Your task to perform on an android device: empty trash in google photos Image 0: 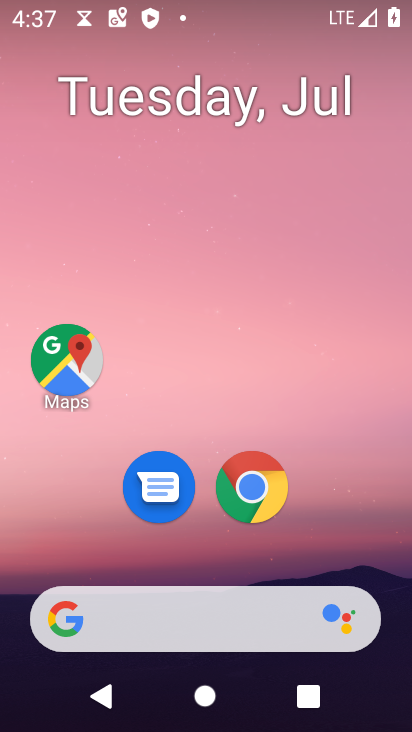
Step 0: drag from (175, 548) to (259, 32)
Your task to perform on an android device: empty trash in google photos Image 1: 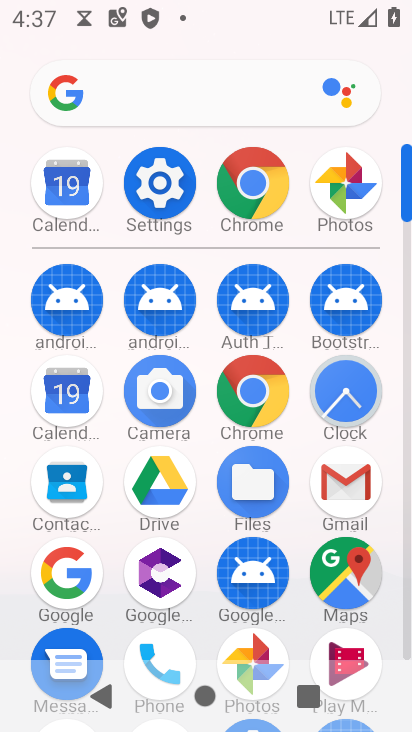
Step 1: click (260, 641)
Your task to perform on an android device: empty trash in google photos Image 2: 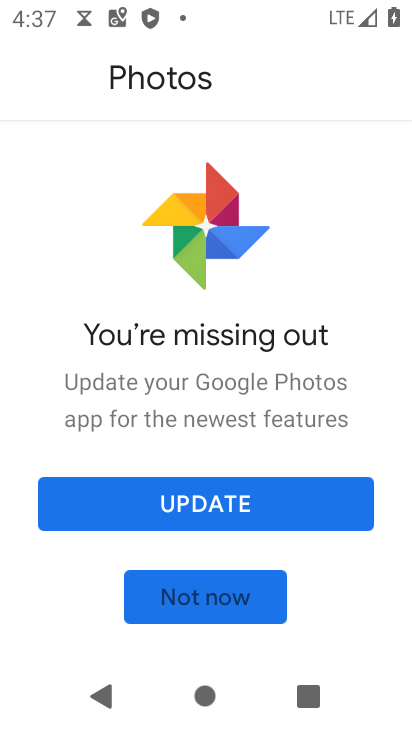
Step 2: click (234, 606)
Your task to perform on an android device: empty trash in google photos Image 3: 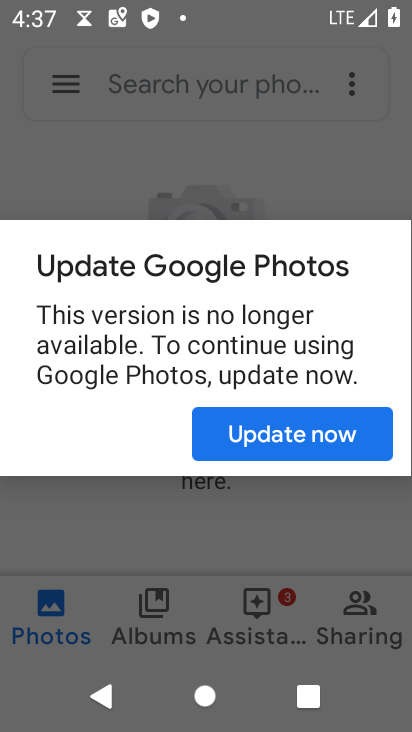
Step 3: click (284, 416)
Your task to perform on an android device: empty trash in google photos Image 4: 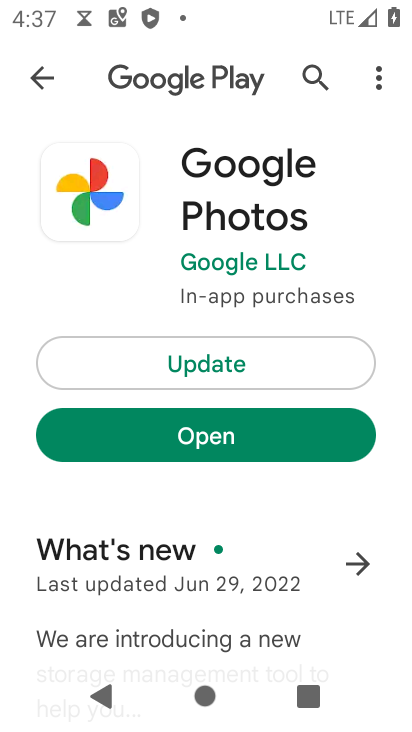
Step 4: click (253, 441)
Your task to perform on an android device: empty trash in google photos Image 5: 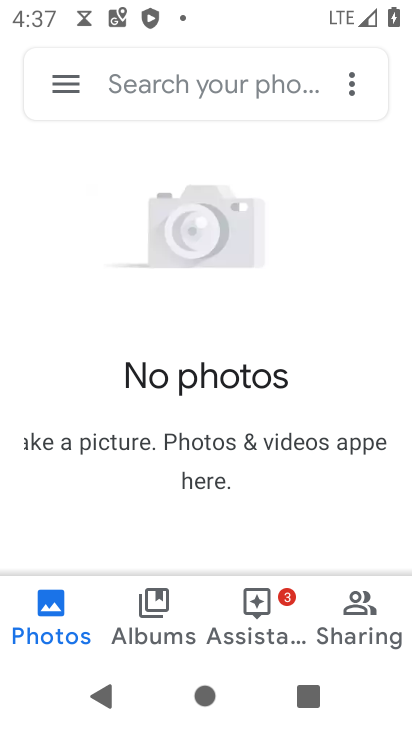
Step 5: click (77, 91)
Your task to perform on an android device: empty trash in google photos Image 6: 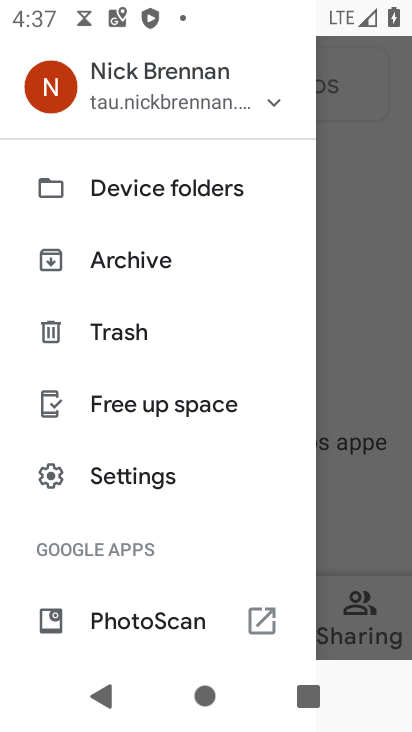
Step 6: click (144, 332)
Your task to perform on an android device: empty trash in google photos Image 7: 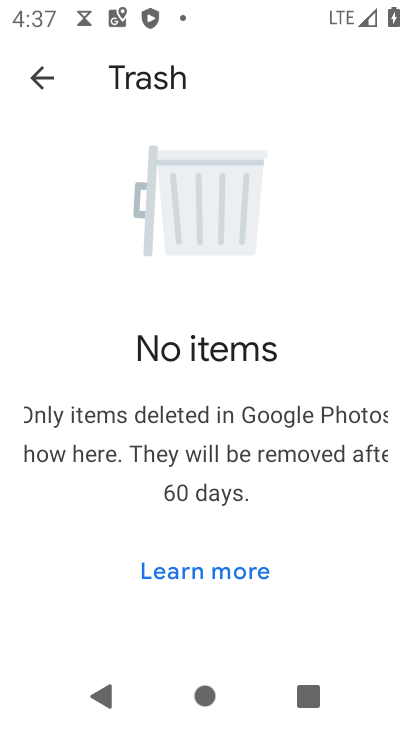
Step 7: task complete